Your task to perform on an android device: set the stopwatch Image 0: 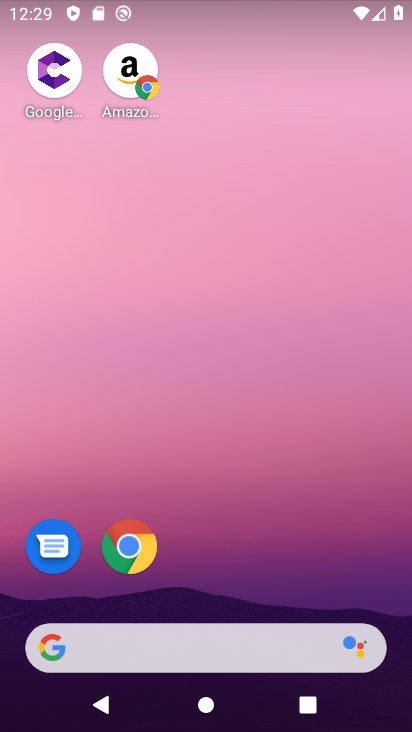
Step 0: drag from (264, 672) to (240, 133)
Your task to perform on an android device: set the stopwatch Image 1: 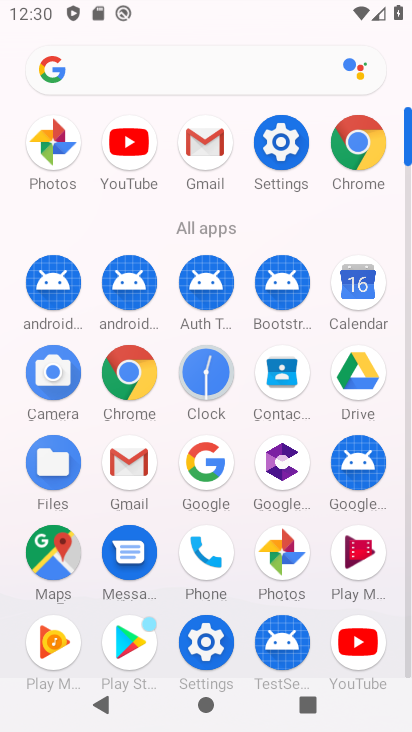
Step 1: click (203, 400)
Your task to perform on an android device: set the stopwatch Image 2: 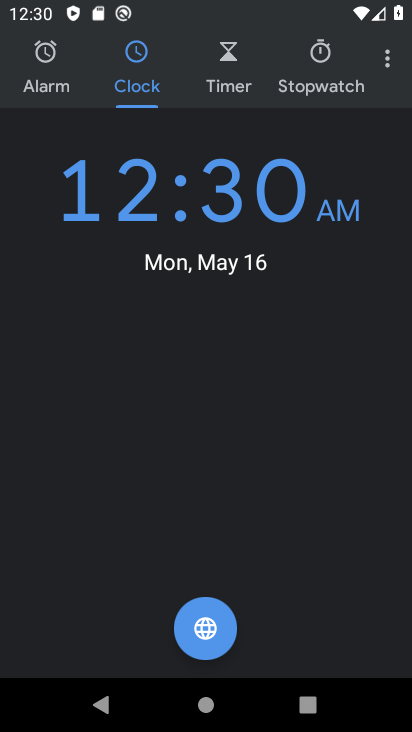
Step 2: click (291, 72)
Your task to perform on an android device: set the stopwatch Image 3: 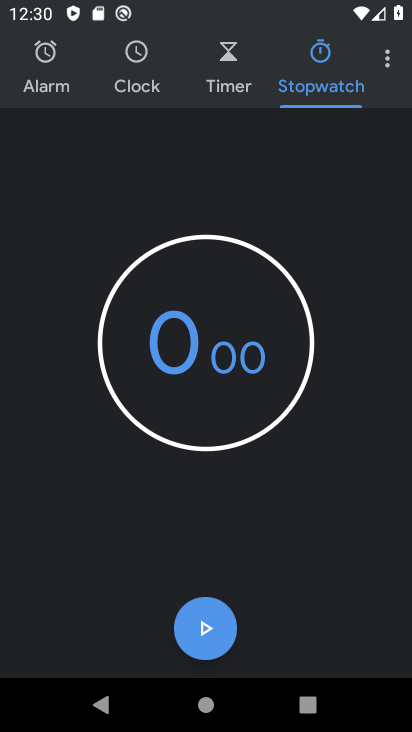
Step 3: task complete